Your task to perform on an android device: uninstall "Spotify: Music and Podcasts" Image 0: 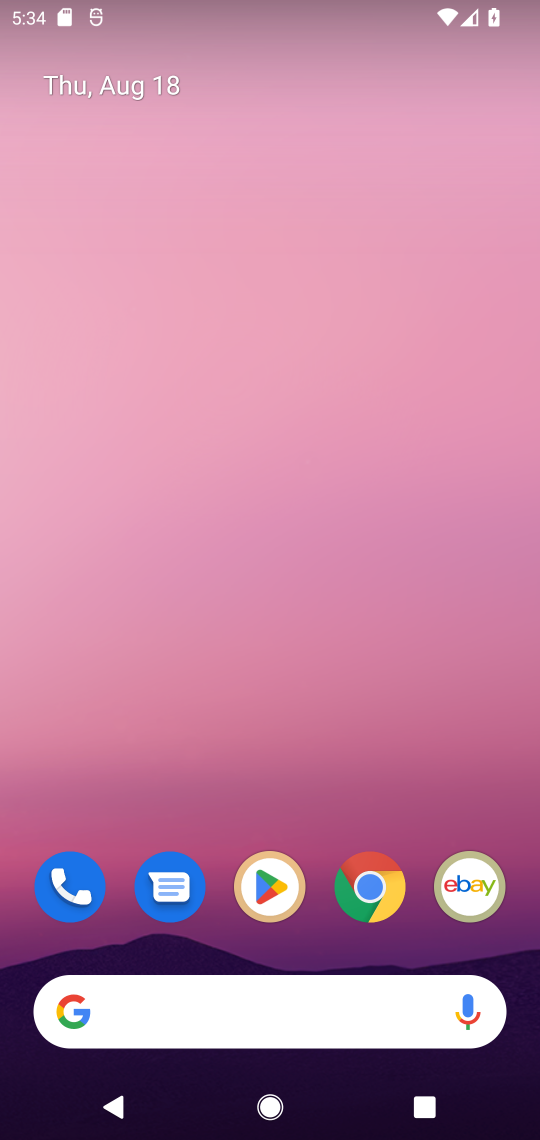
Step 0: click (270, 892)
Your task to perform on an android device: uninstall "Spotify: Music and Podcasts" Image 1: 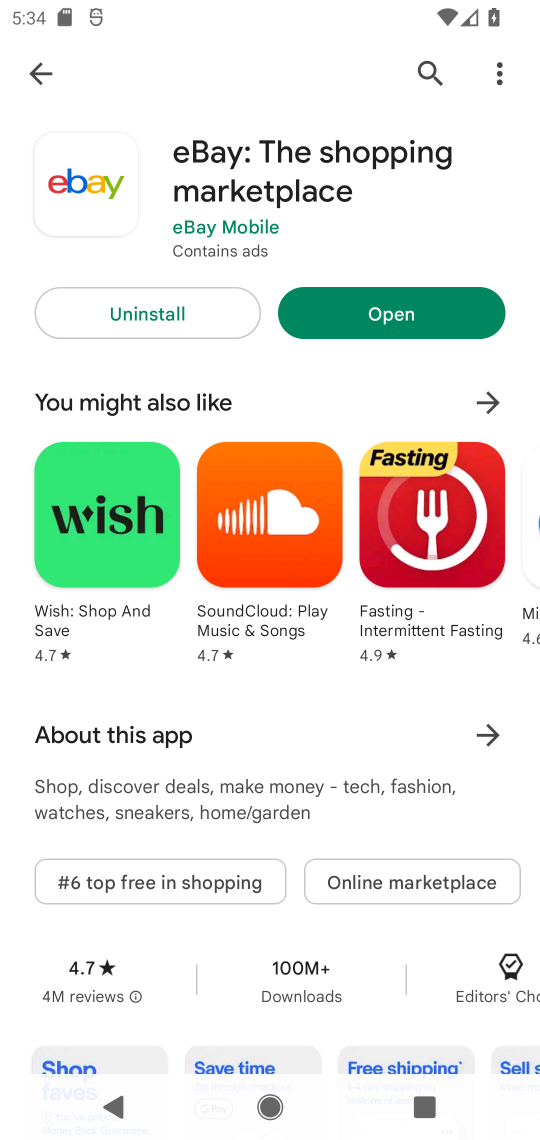
Step 1: click (431, 67)
Your task to perform on an android device: uninstall "Spotify: Music and Podcasts" Image 2: 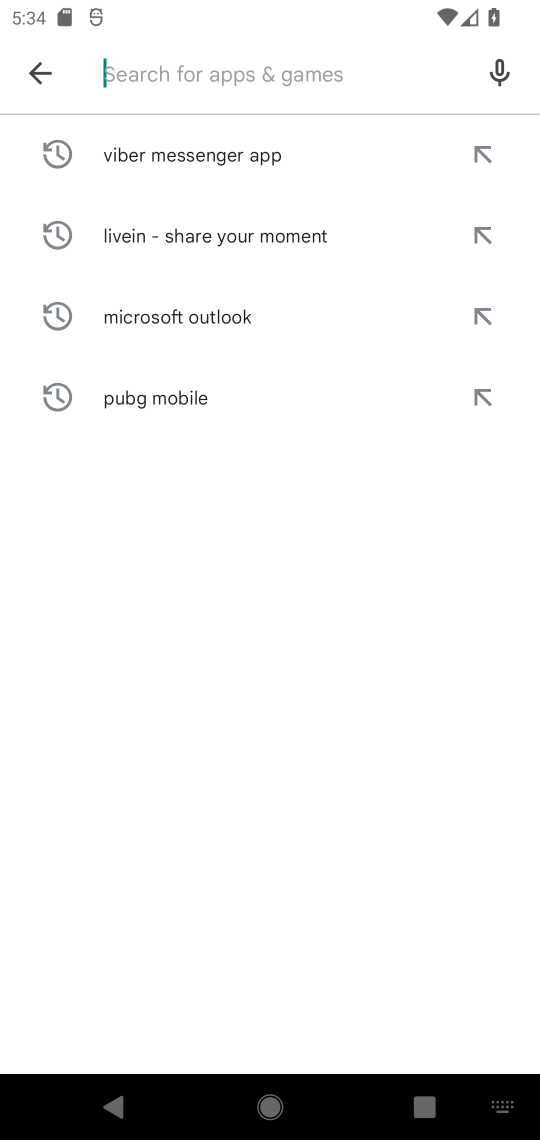
Step 2: type "Spotify: Music and Podcasts"
Your task to perform on an android device: uninstall "Spotify: Music and Podcasts" Image 3: 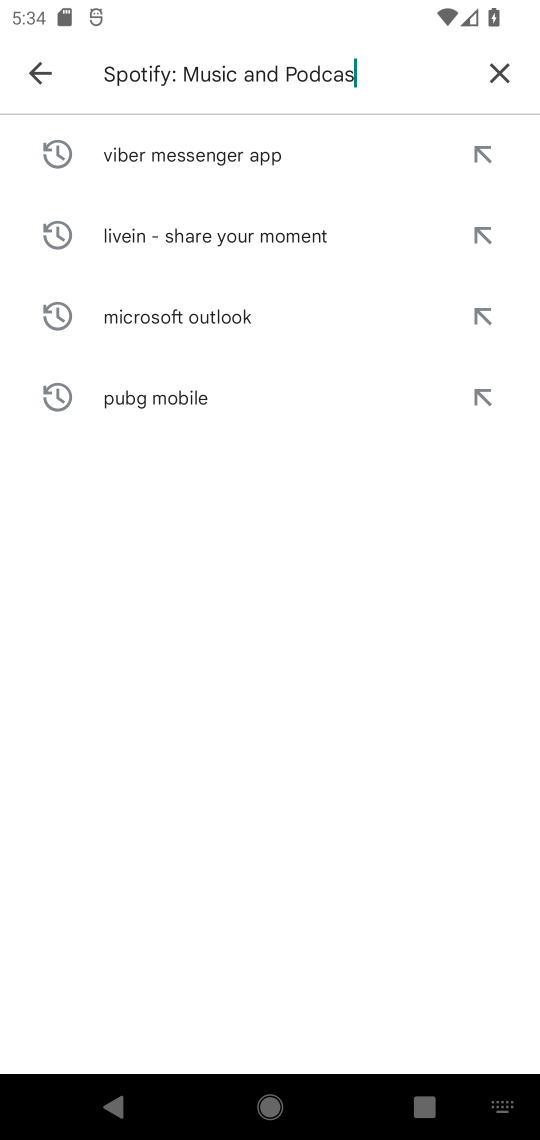
Step 3: type ""
Your task to perform on an android device: uninstall "Spotify: Music and Podcasts" Image 4: 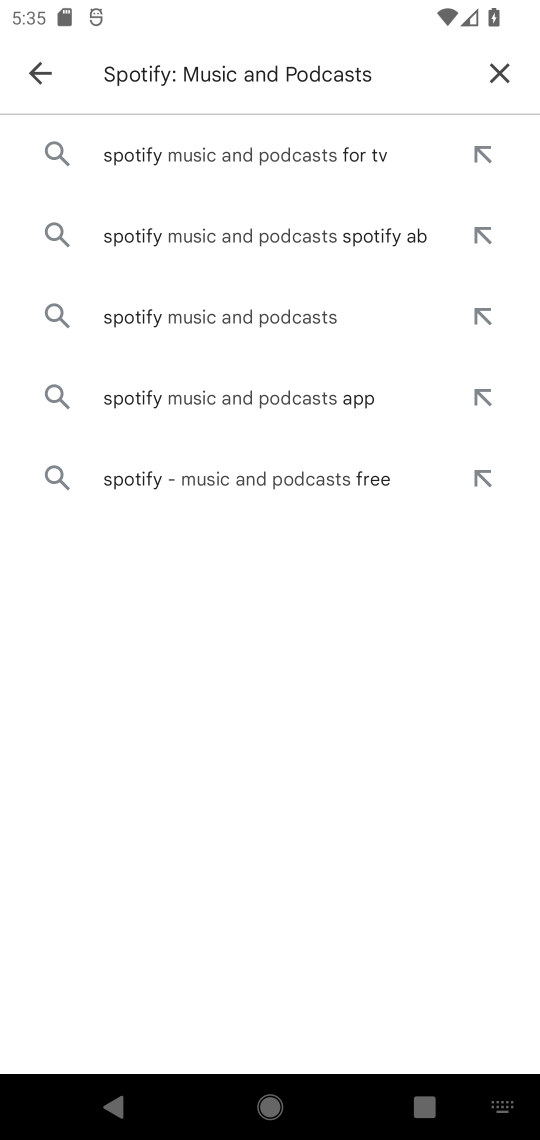
Step 4: click (254, 316)
Your task to perform on an android device: uninstall "Spotify: Music and Podcasts" Image 5: 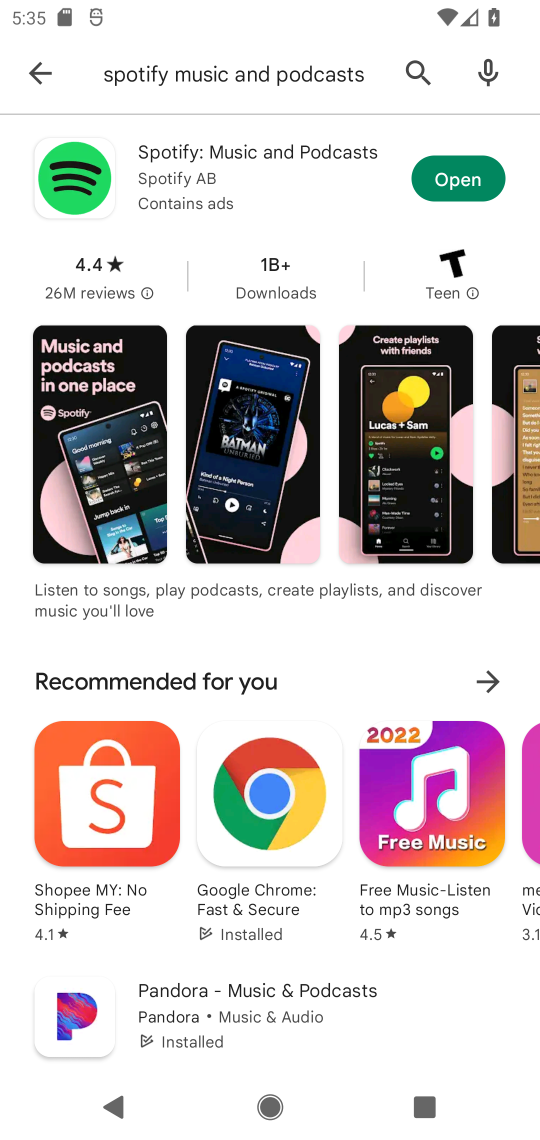
Step 5: click (197, 168)
Your task to perform on an android device: uninstall "Spotify: Music and Podcasts" Image 6: 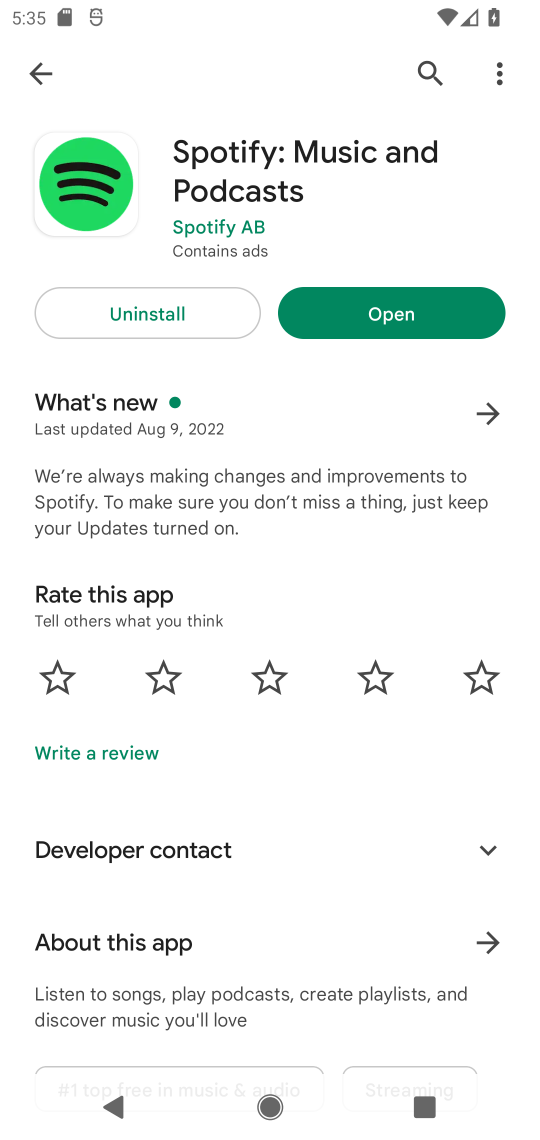
Step 6: click (144, 306)
Your task to perform on an android device: uninstall "Spotify: Music and Podcasts" Image 7: 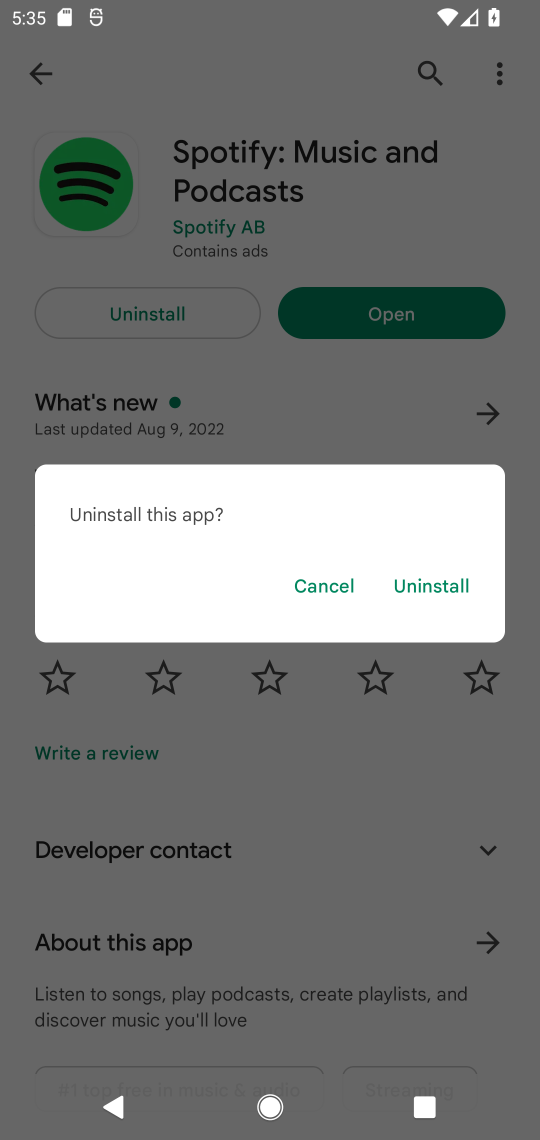
Step 7: click (446, 581)
Your task to perform on an android device: uninstall "Spotify: Music and Podcasts" Image 8: 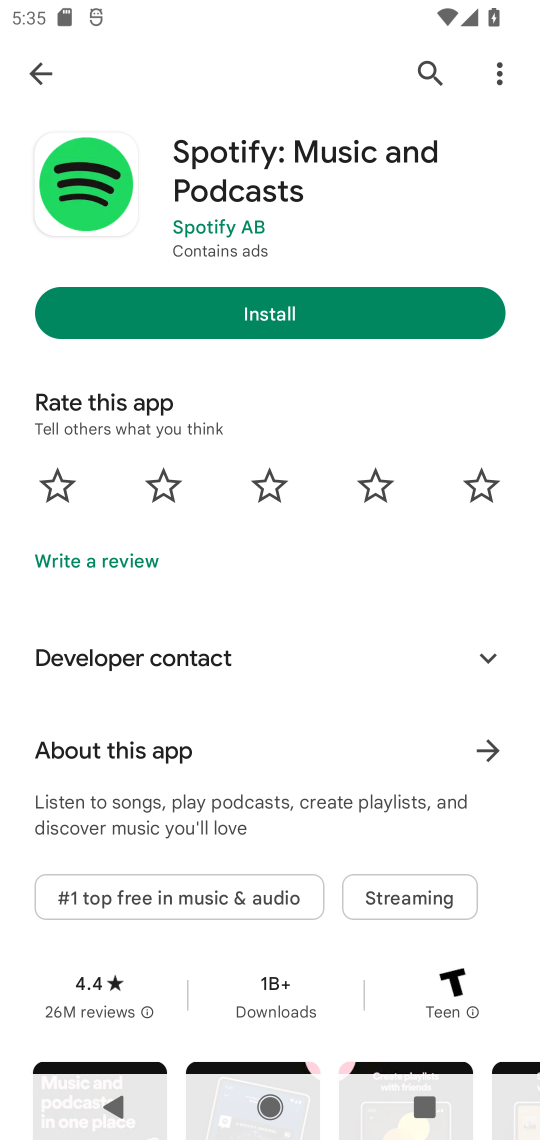
Step 8: task complete